Your task to perform on an android device: Open Amazon Image 0: 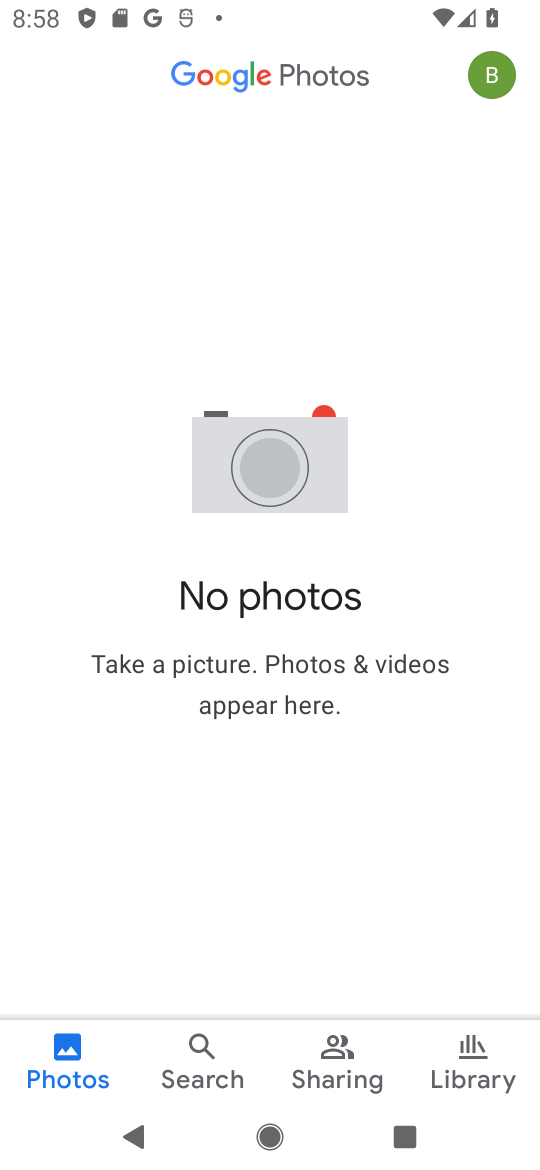
Step 0: press home button
Your task to perform on an android device: Open Amazon Image 1: 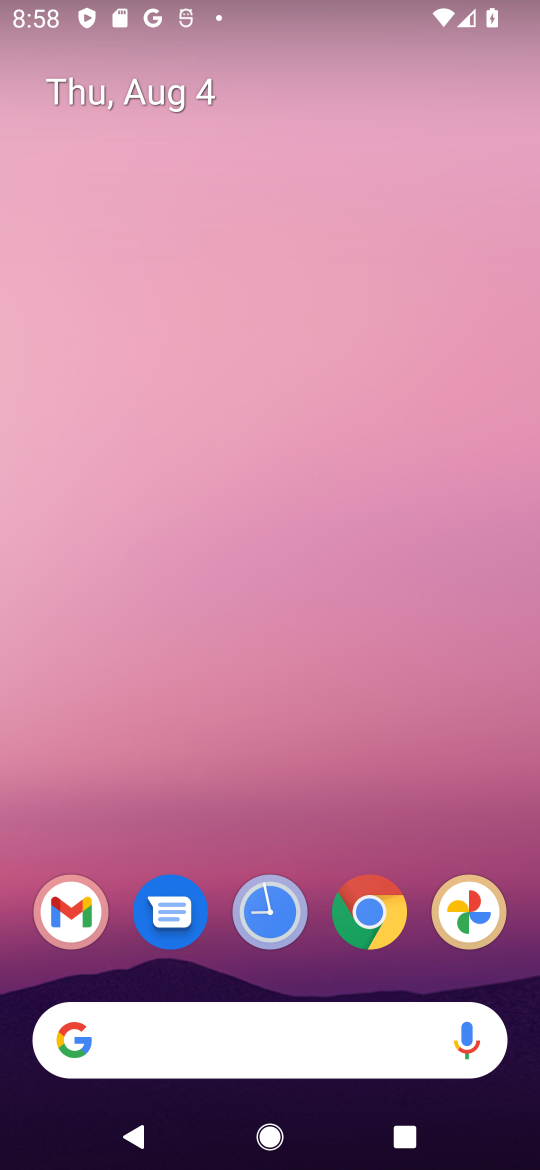
Step 1: click (373, 889)
Your task to perform on an android device: Open Amazon Image 2: 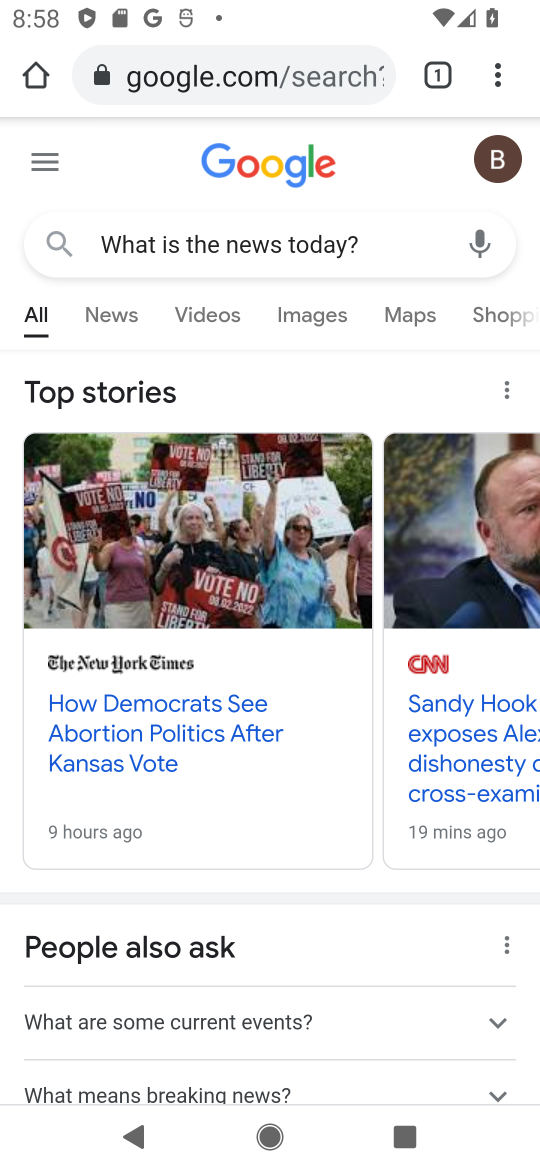
Step 2: click (449, 85)
Your task to perform on an android device: Open Amazon Image 3: 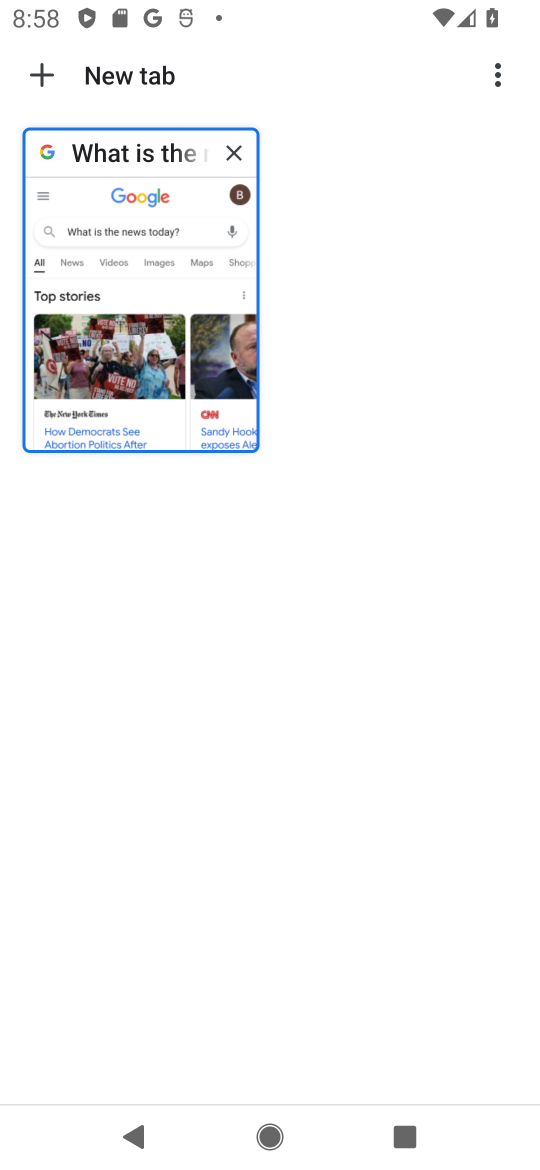
Step 3: click (126, 66)
Your task to perform on an android device: Open Amazon Image 4: 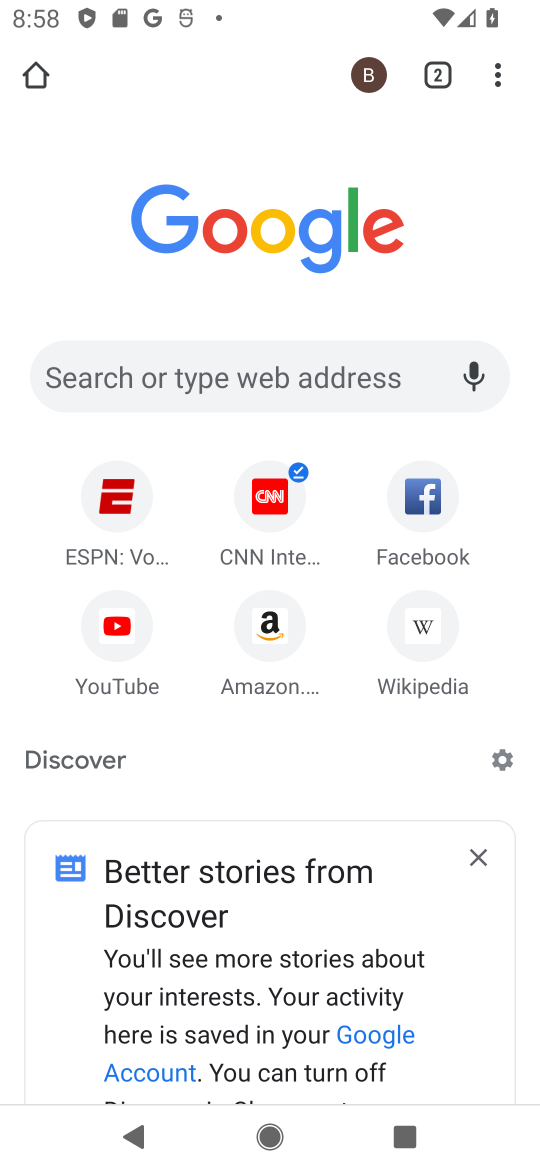
Step 4: click (262, 631)
Your task to perform on an android device: Open Amazon Image 5: 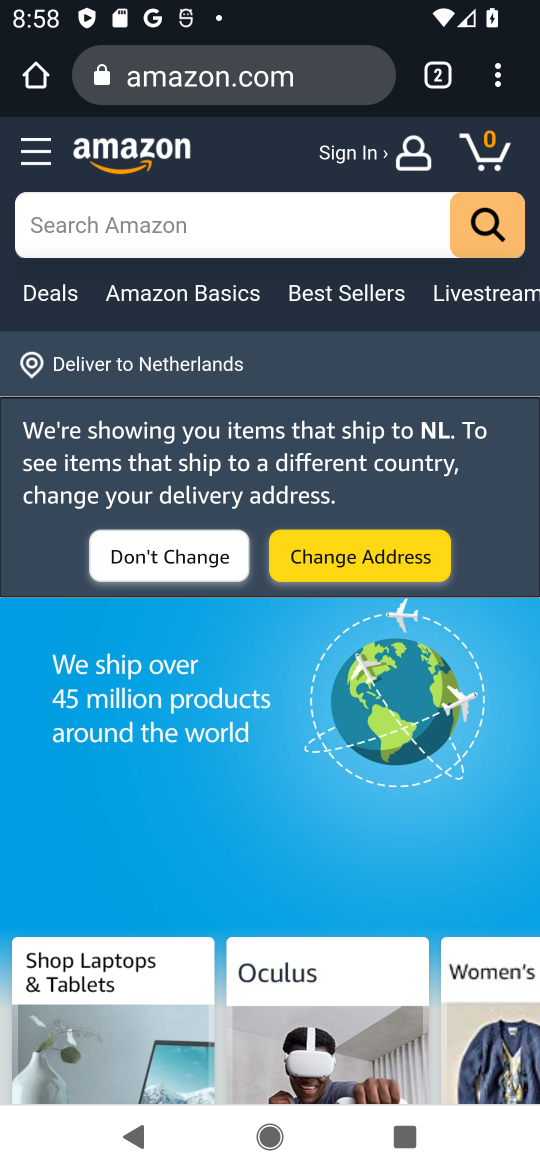
Step 5: task complete